Your task to perform on an android device: Open the calendar app, open the side menu, and click the "Day" option Image 0: 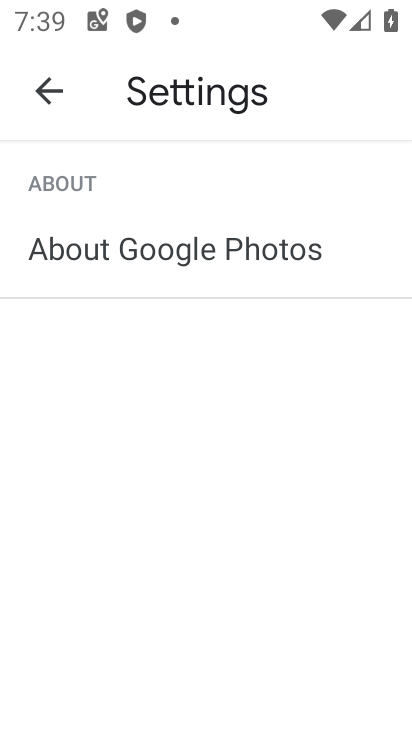
Step 0: press home button
Your task to perform on an android device: Open the calendar app, open the side menu, and click the "Day" option Image 1: 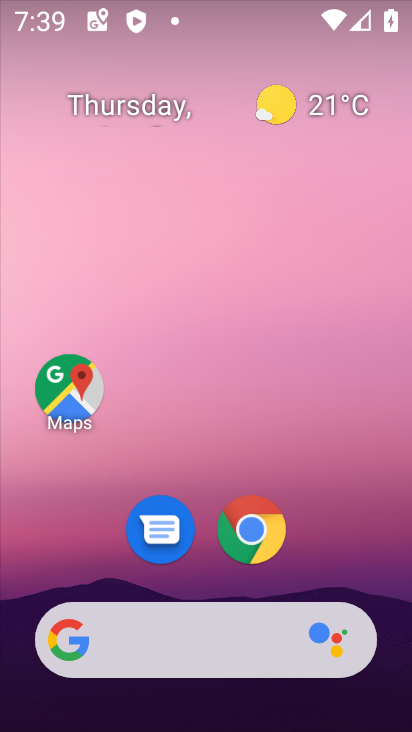
Step 1: drag from (277, 291) to (276, 255)
Your task to perform on an android device: Open the calendar app, open the side menu, and click the "Day" option Image 2: 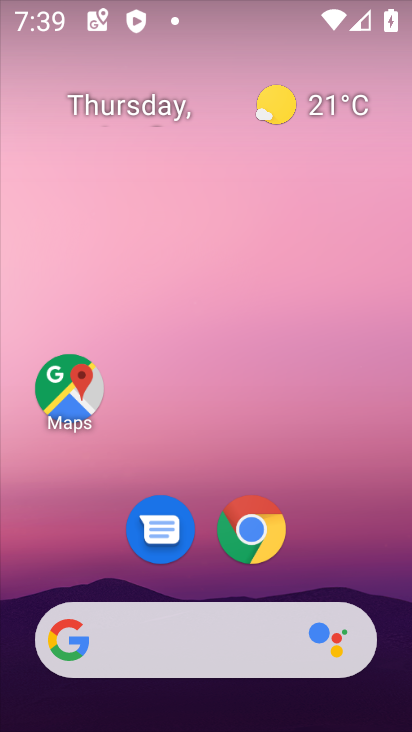
Step 2: drag from (213, 718) to (226, 185)
Your task to perform on an android device: Open the calendar app, open the side menu, and click the "Day" option Image 3: 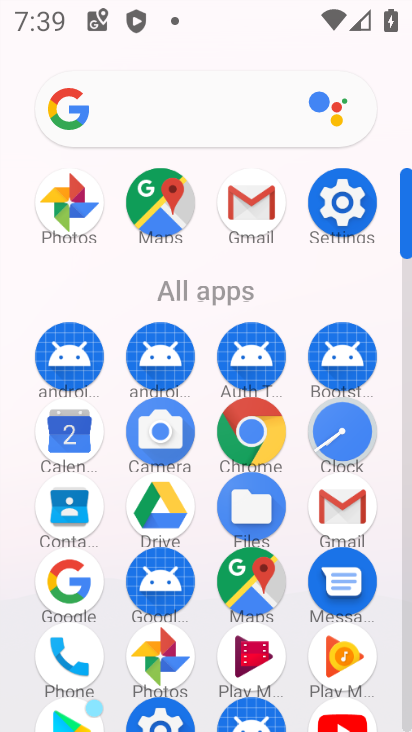
Step 3: click (72, 437)
Your task to perform on an android device: Open the calendar app, open the side menu, and click the "Day" option Image 4: 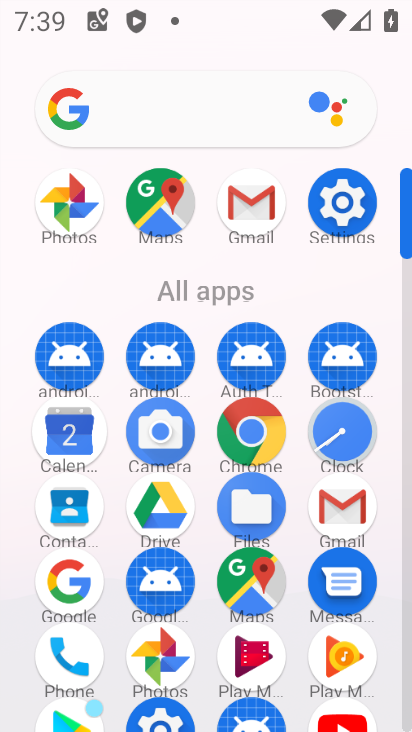
Step 4: click (72, 437)
Your task to perform on an android device: Open the calendar app, open the side menu, and click the "Day" option Image 5: 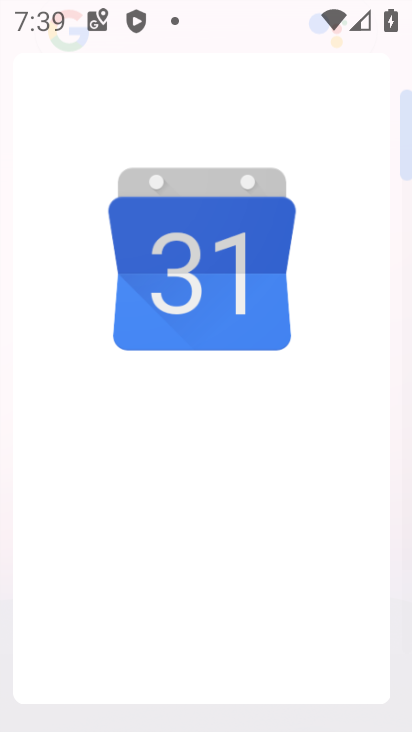
Step 5: click (72, 437)
Your task to perform on an android device: Open the calendar app, open the side menu, and click the "Day" option Image 6: 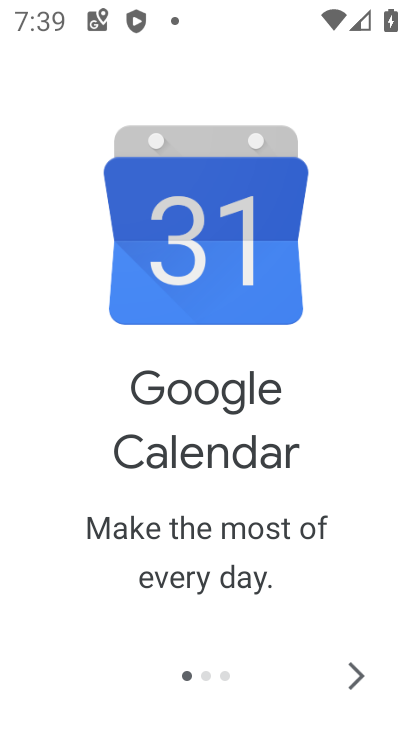
Step 6: click (362, 674)
Your task to perform on an android device: Open the calendar app, open the side menu, and click the "Day" option Image 7: 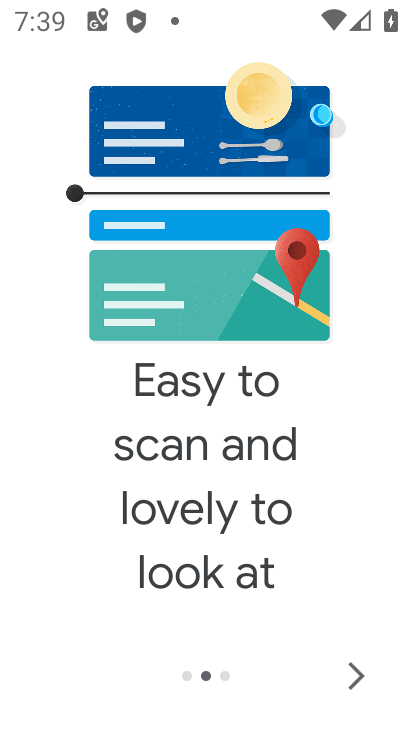
Step 7: click (362, 674)
Your task to perform on an android device: Open the calendar app, open the side menu, and click the "Day" option Image 8: 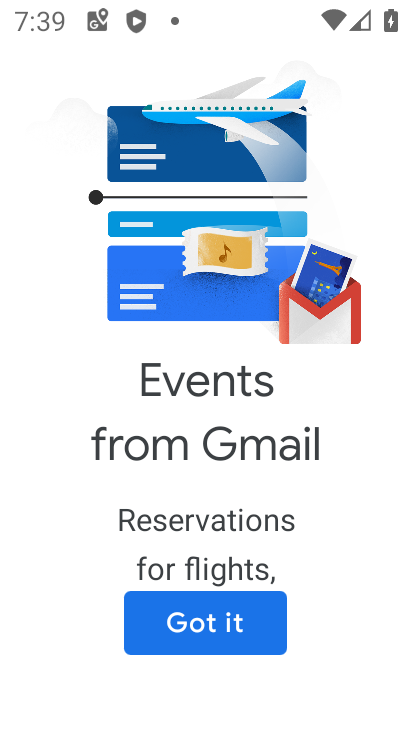
Step 8: click (201, 606)
Your task to perform on an android device: Open the calendar app, open the side menu, and click the "Day" option Image 9: 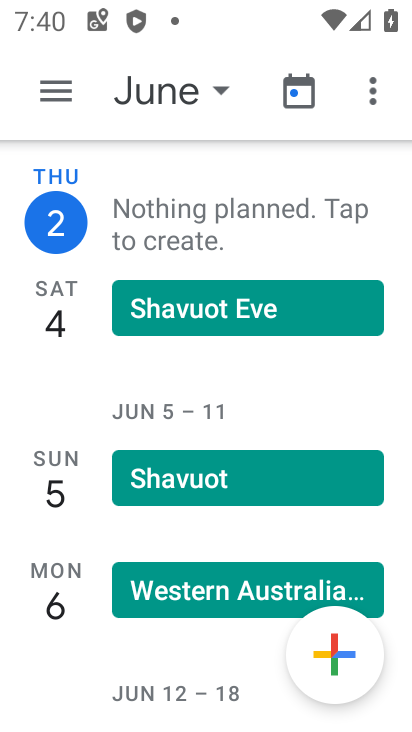
Step 9: click (54, 98)
Your task to perform on an android device: Open the calendar app, open the side menu, and click the "Day" option Image 10: 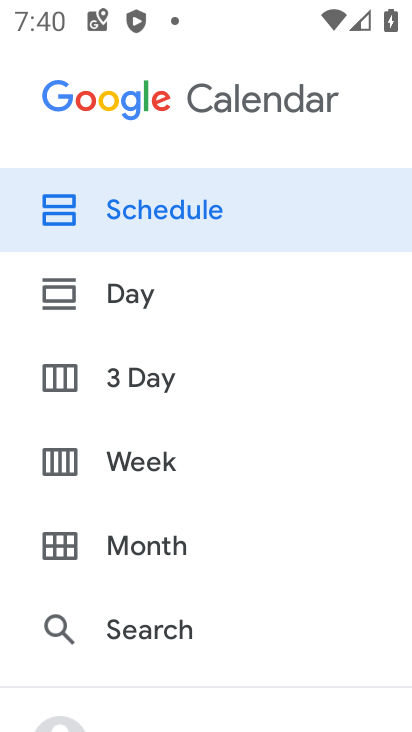
Step 10: click (117, 290)
Your task to perform on an android device: Open the calendar app, open the side menu, and click the "Day" option Image 11: 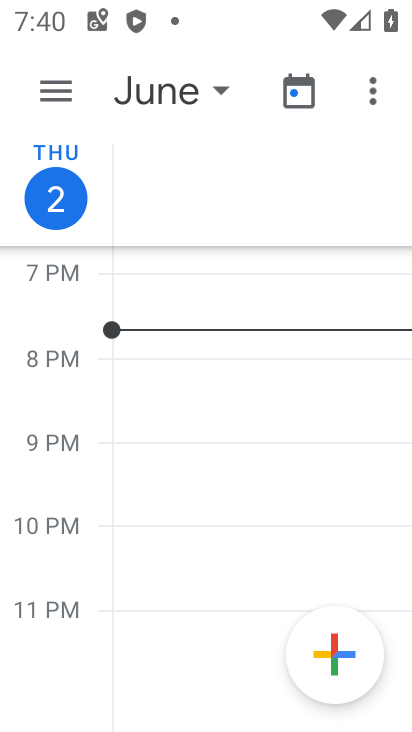
Step 11: task complete